Your task to perform on an android device: find snoozed emails in the gmail app Image 0: 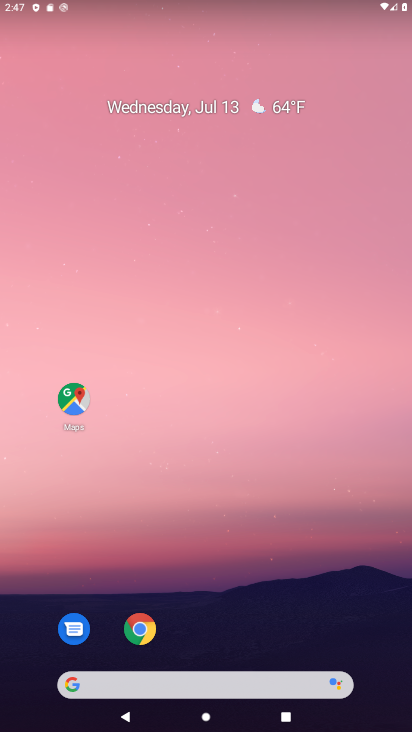
Step 0: drag from (257, 623) to (212, 136)
Your task to perform on an android device: find snoozed emails in the gmail app Image 1: 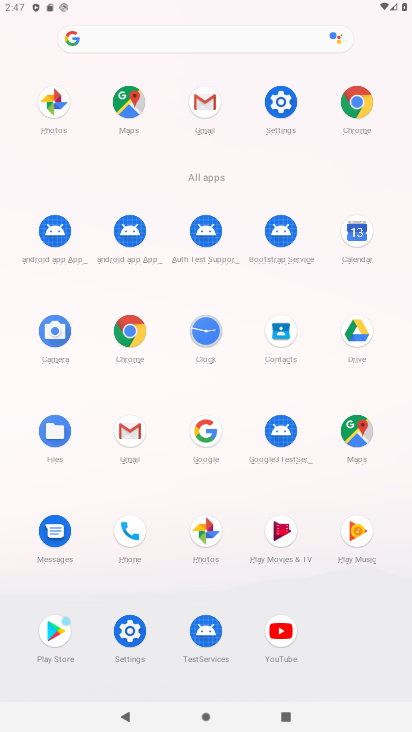
Step 1: click (202, 111)
Your task to perform on an android device: find snoozed emails in the gmail app Image 2: 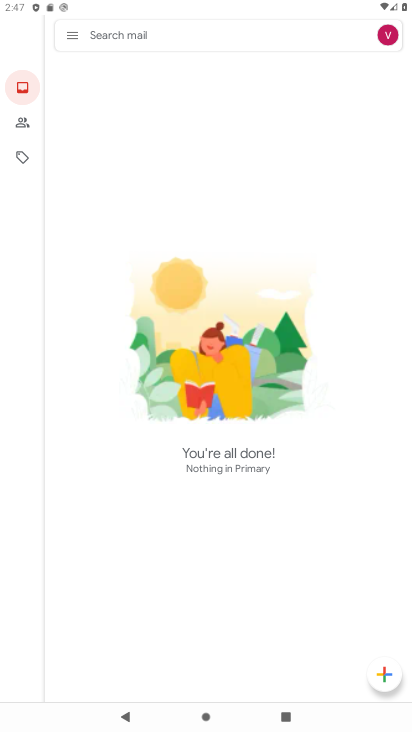
Step 2: click (69, 37)
Your task to perform on an android device: find snoozed emails in the gmail app Image 3: 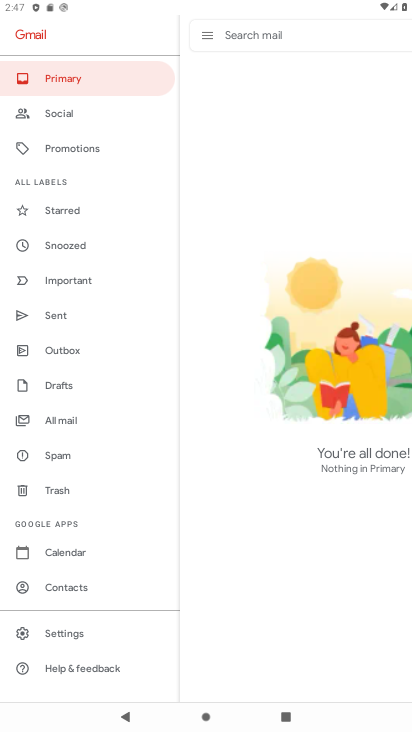
Step 3: click (78, 241)
Your task to perform on an android device: find snoozed emails in the gmail app Image 4: 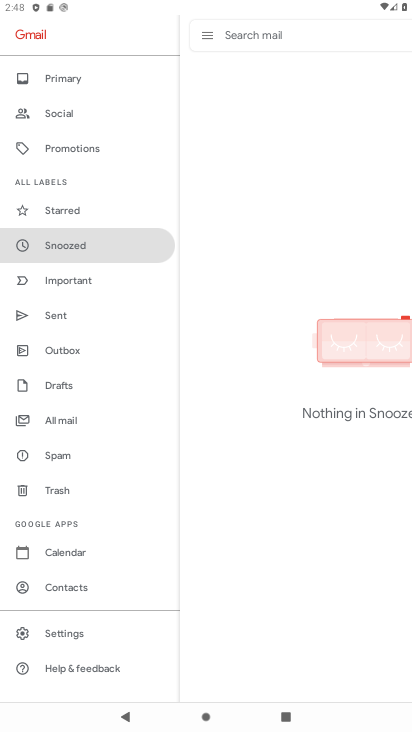
Step 4: task complete